Your task to perform on an android device: create a new album in the google photos Image 0: 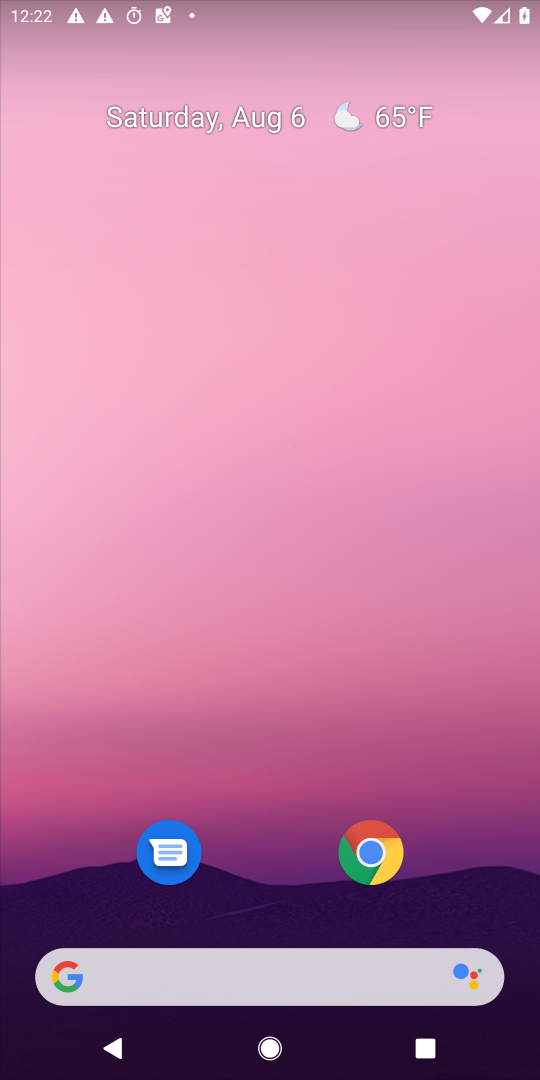
Step 0: drag from (360, 1015) to (249, 423)
Your task to perform on an android device: create a new album in the google photos Image 1: 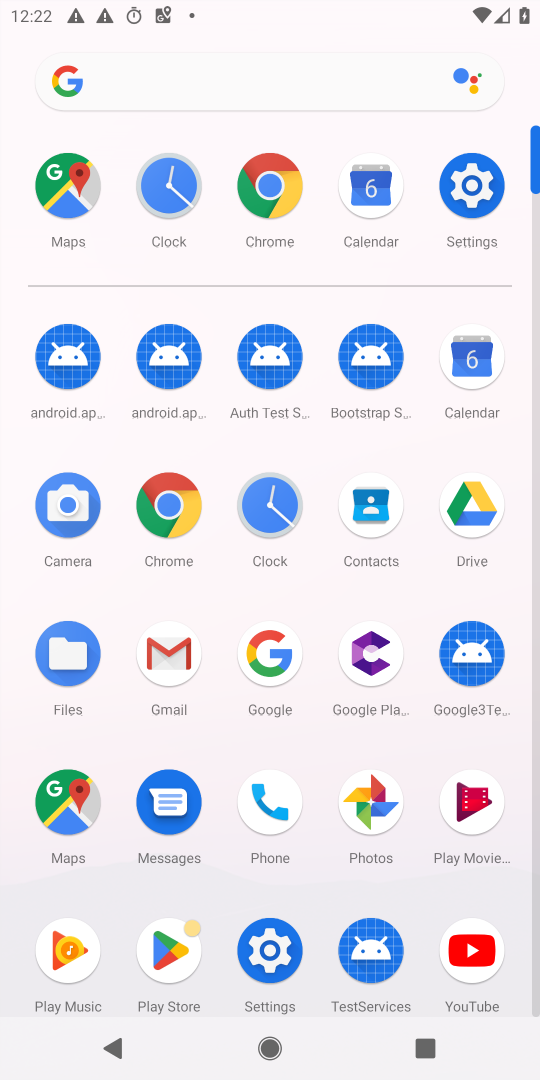
Step 1: click (373, 814)
Your task to perform on an android device: create a new album in the google photos Image 2: 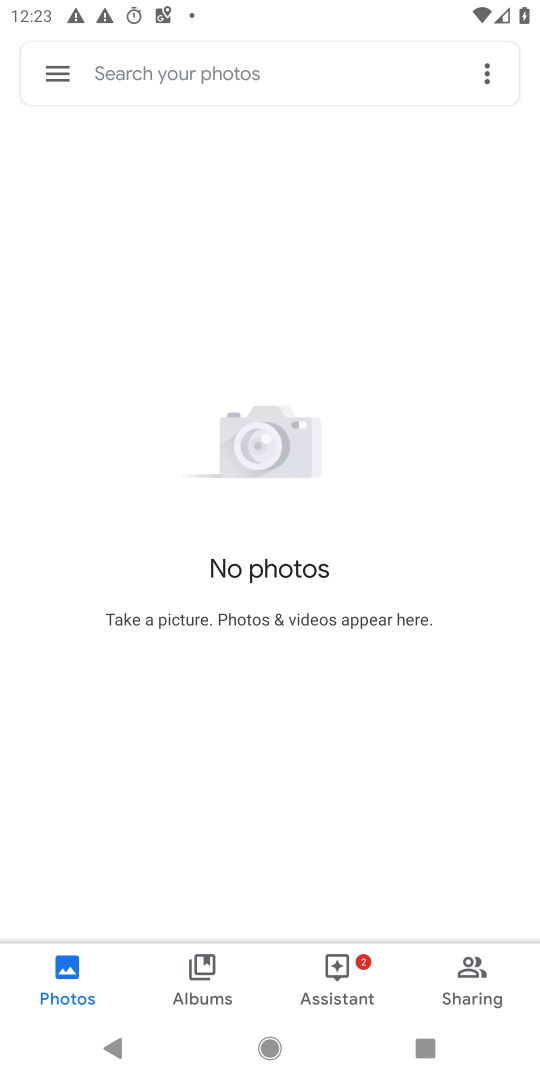
Step 2: task complete